Your task to perform on an android device: What's on the menu at Domino's? Image 0: 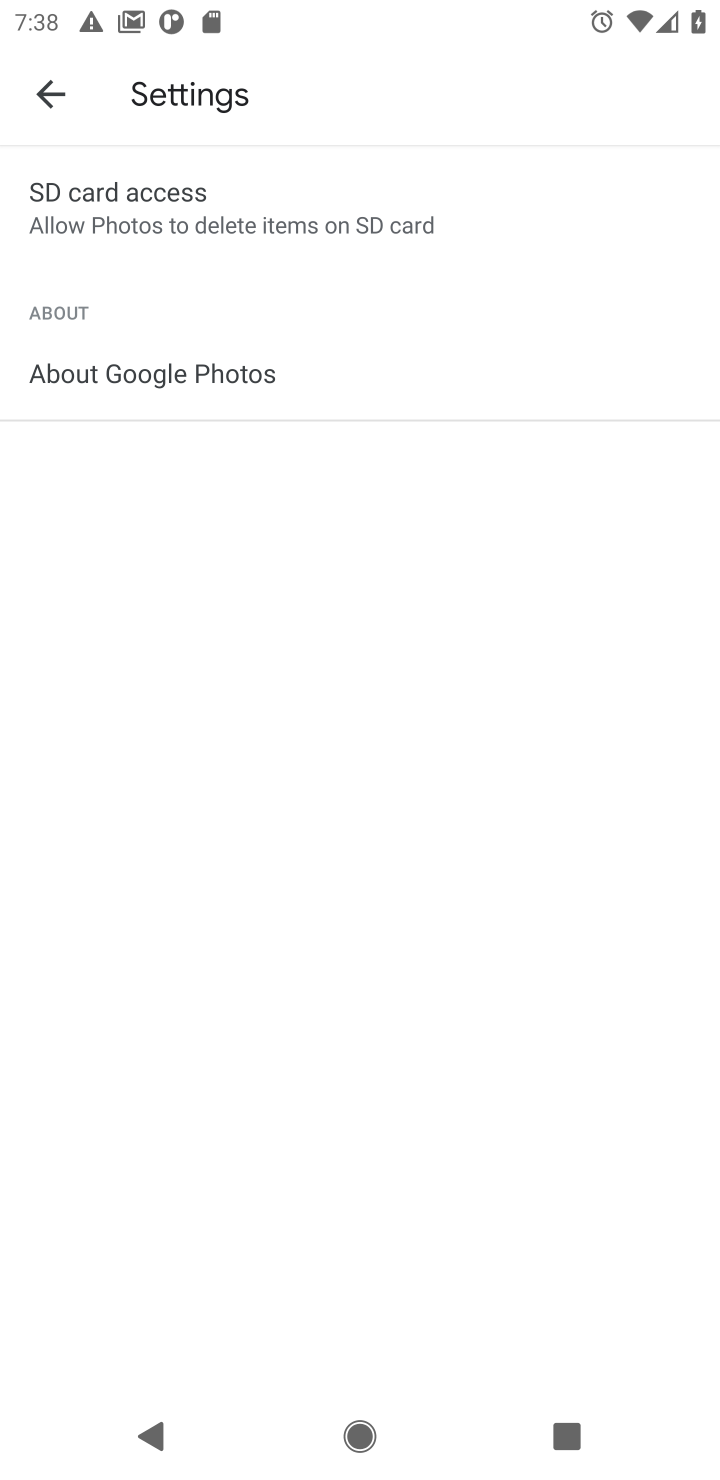
Step 0: press home button
Your task to perform on an android device: What's on the menu at Domino's? Image 1: 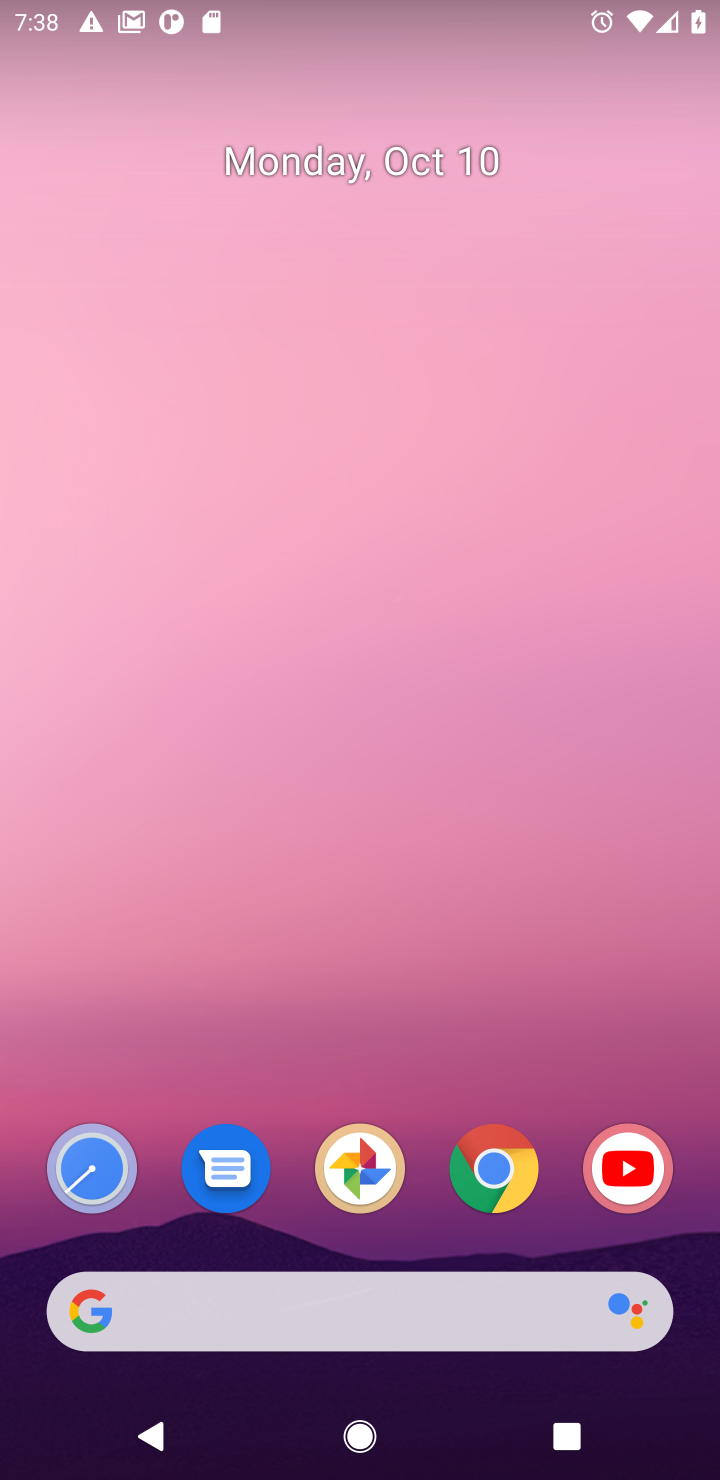
Step 1: click (347, 1317)
Your task to perform on an android device: What's on the menu at Domino's? Image 2: 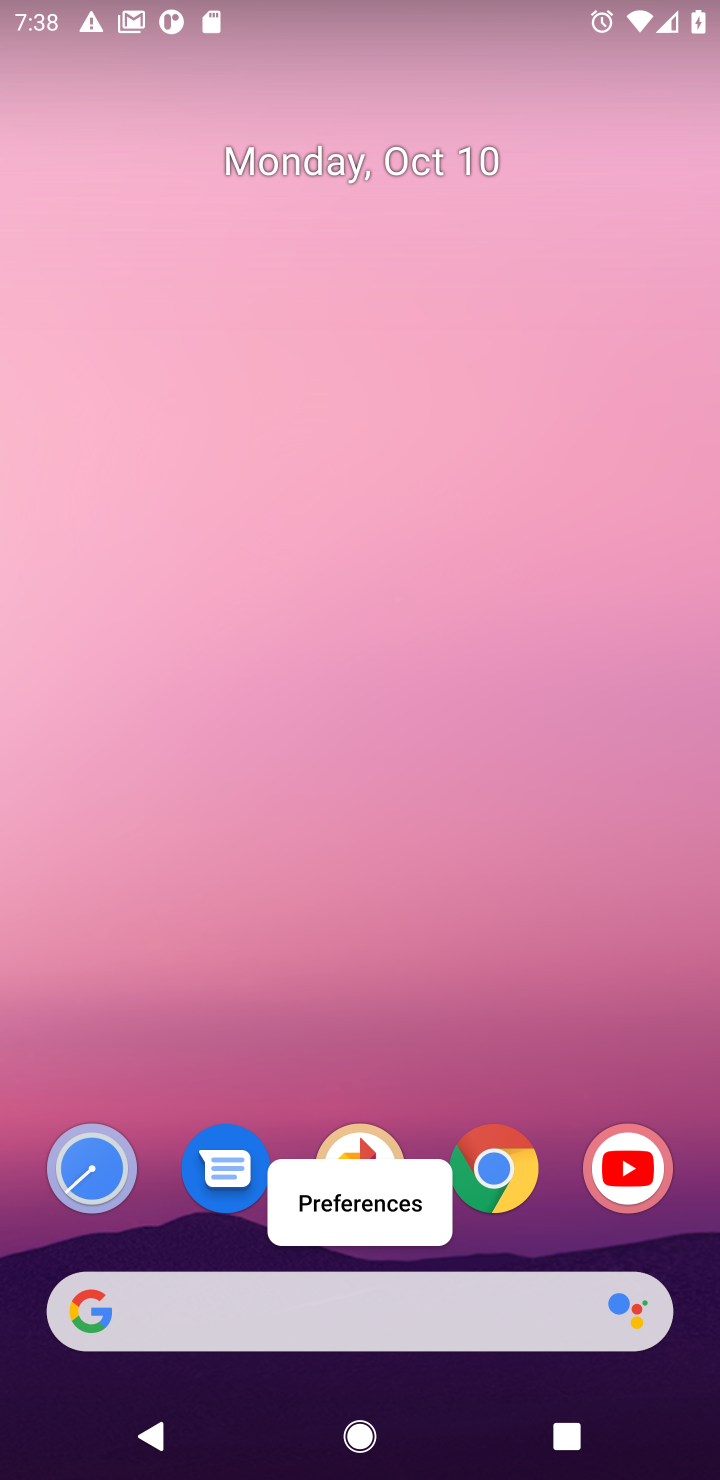
Step 2: click (212, 1321)
Your task to perform on an android device: What's on the menu at Domino's? Image 3: 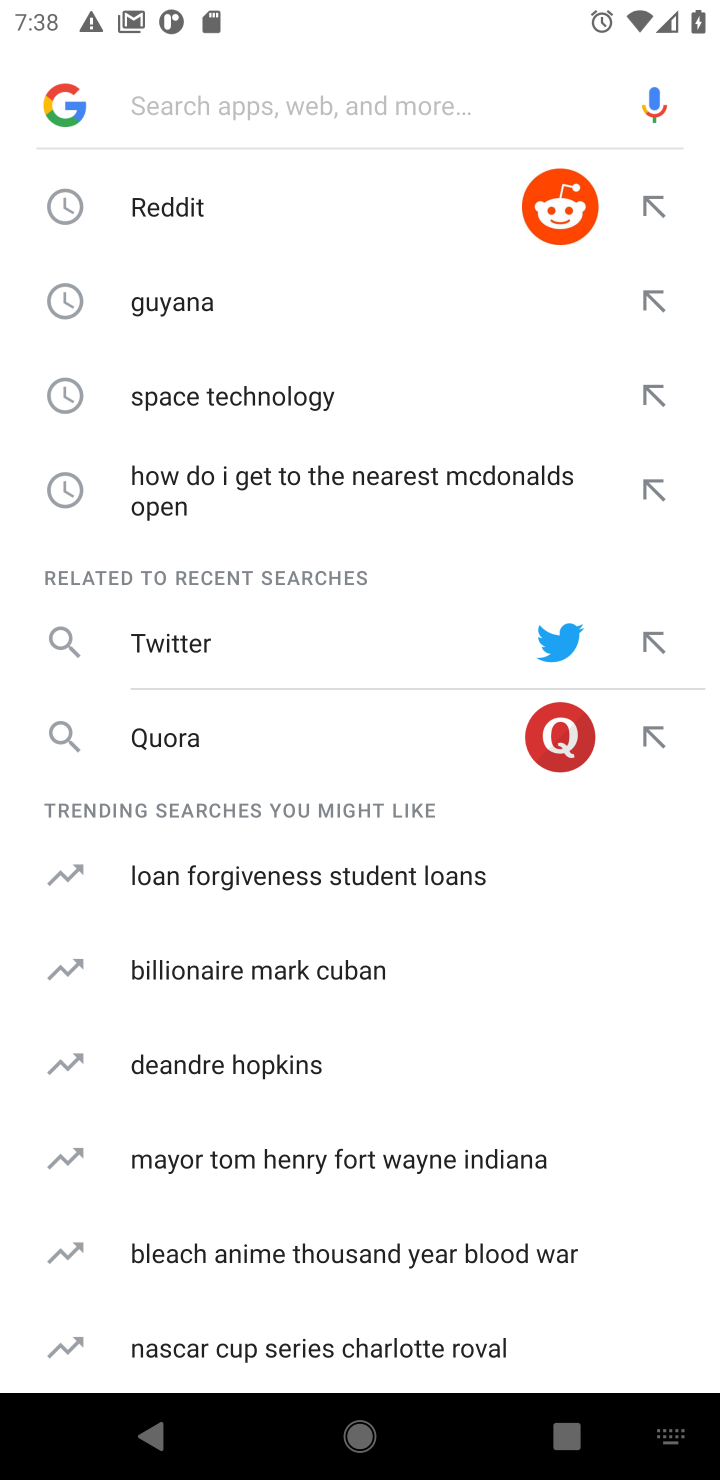
Step 3: type "domino's menu"
Your task to perform on an android device: What's on the menu at Domino's? Image 4: 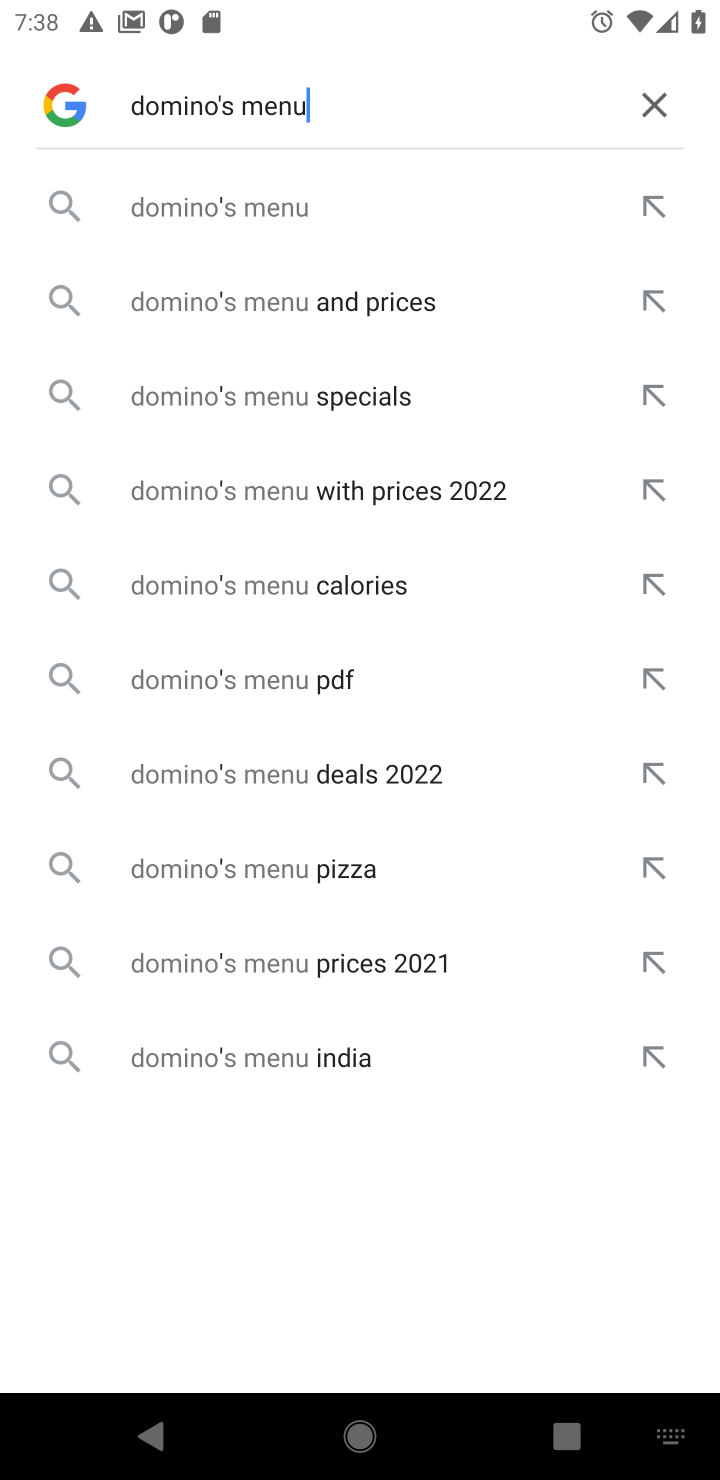
Step 4: click (222, 215)
Your task to perform on an android device: What's on the menu at Domino's? Image 5: 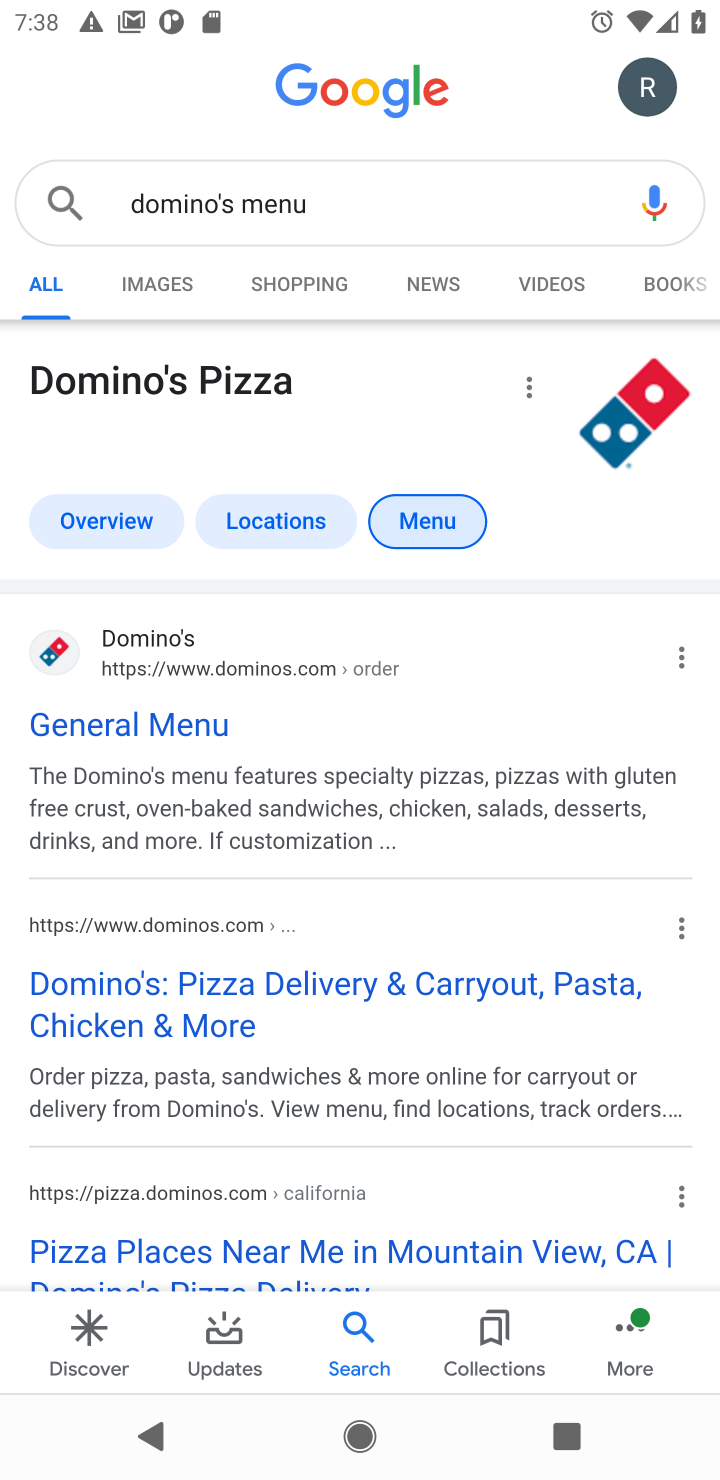
Step 5: drag from (393, 766) to (412, 485)
Your task to perform on an android device: What's on the menu at Domino's? Image 6: 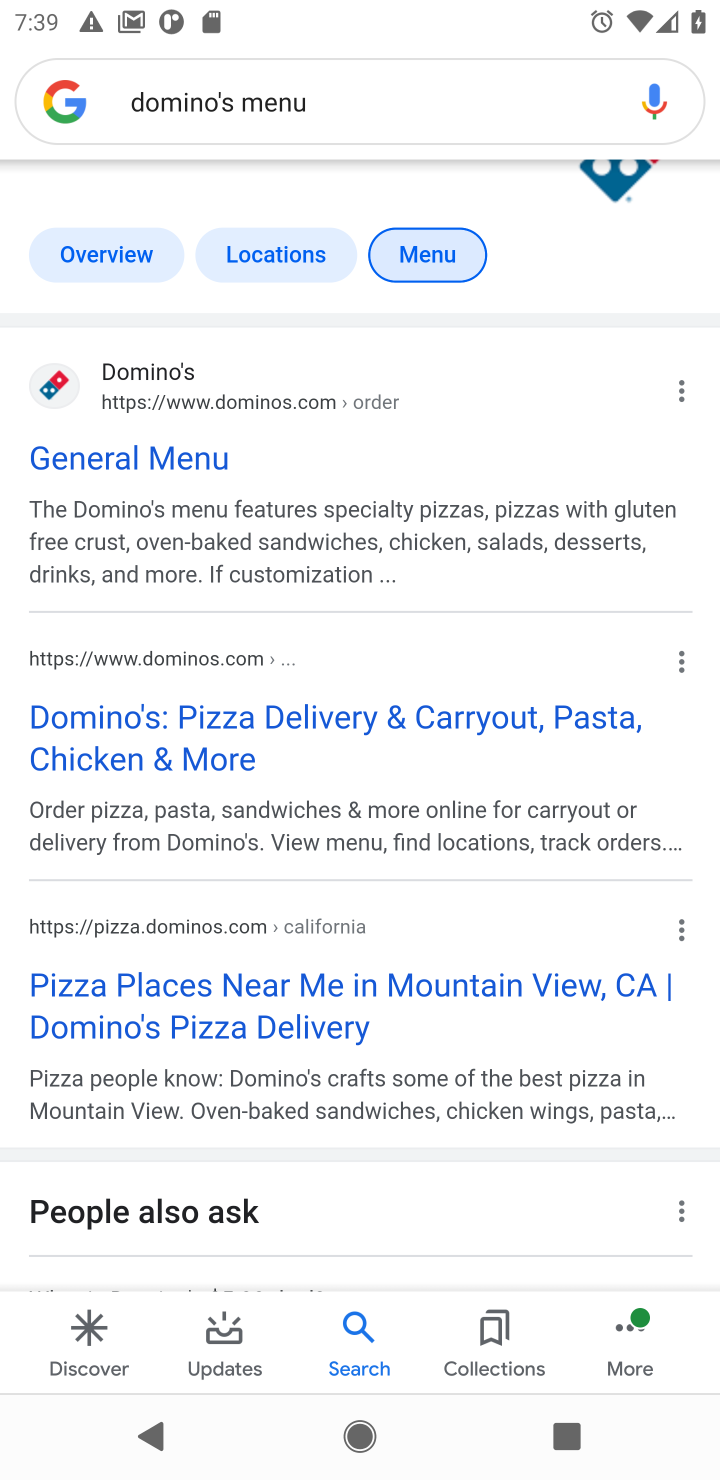
Step 6: click (144, 465)
Your task to perform on an android device: What's on the menu at Domino's? Image 7: 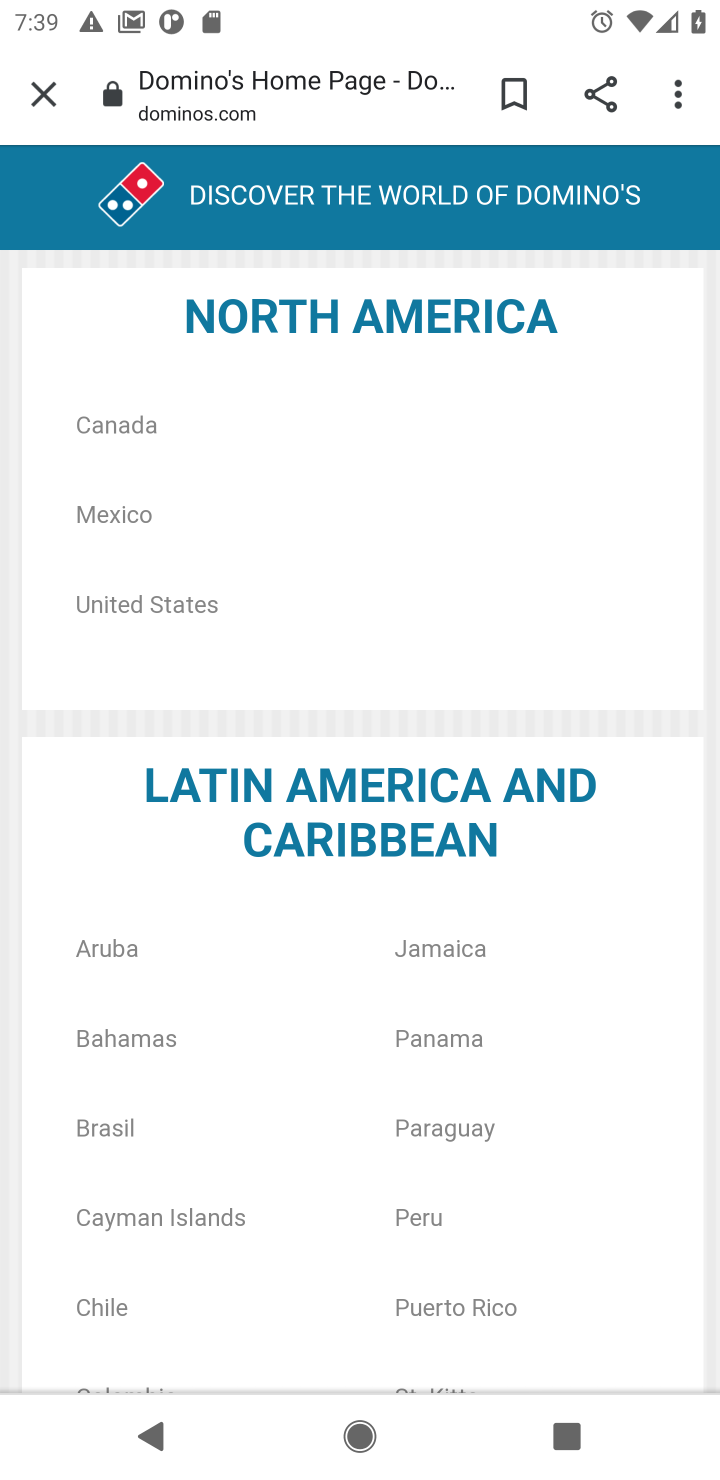
Step 7: drag from (399, 741) to (338, 420)
Your task to perform on an android device: What's on the menu at Domino's? Image 8: 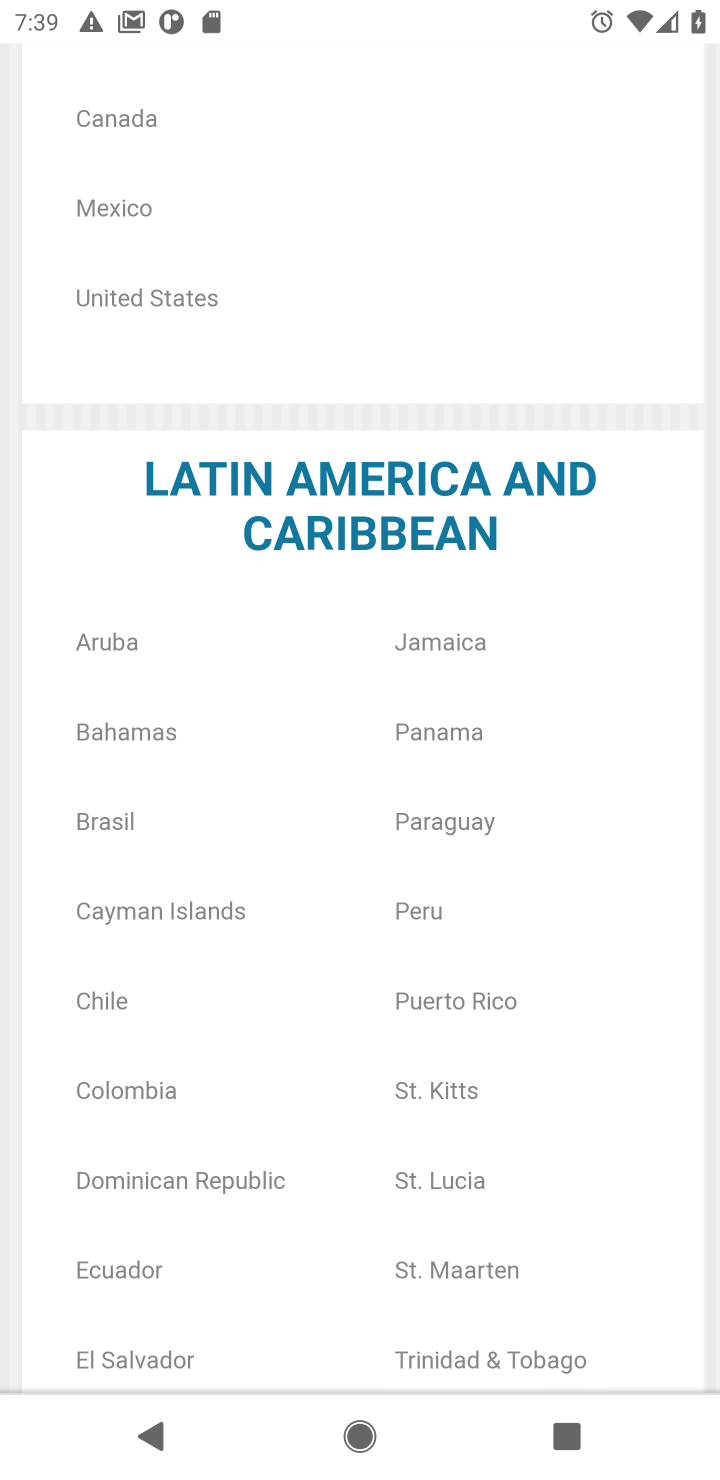
Step 8: drag from (329, 413) to (314, 939)
Your task to perform on an android device: What's on the menu at Domino's? Image 9: 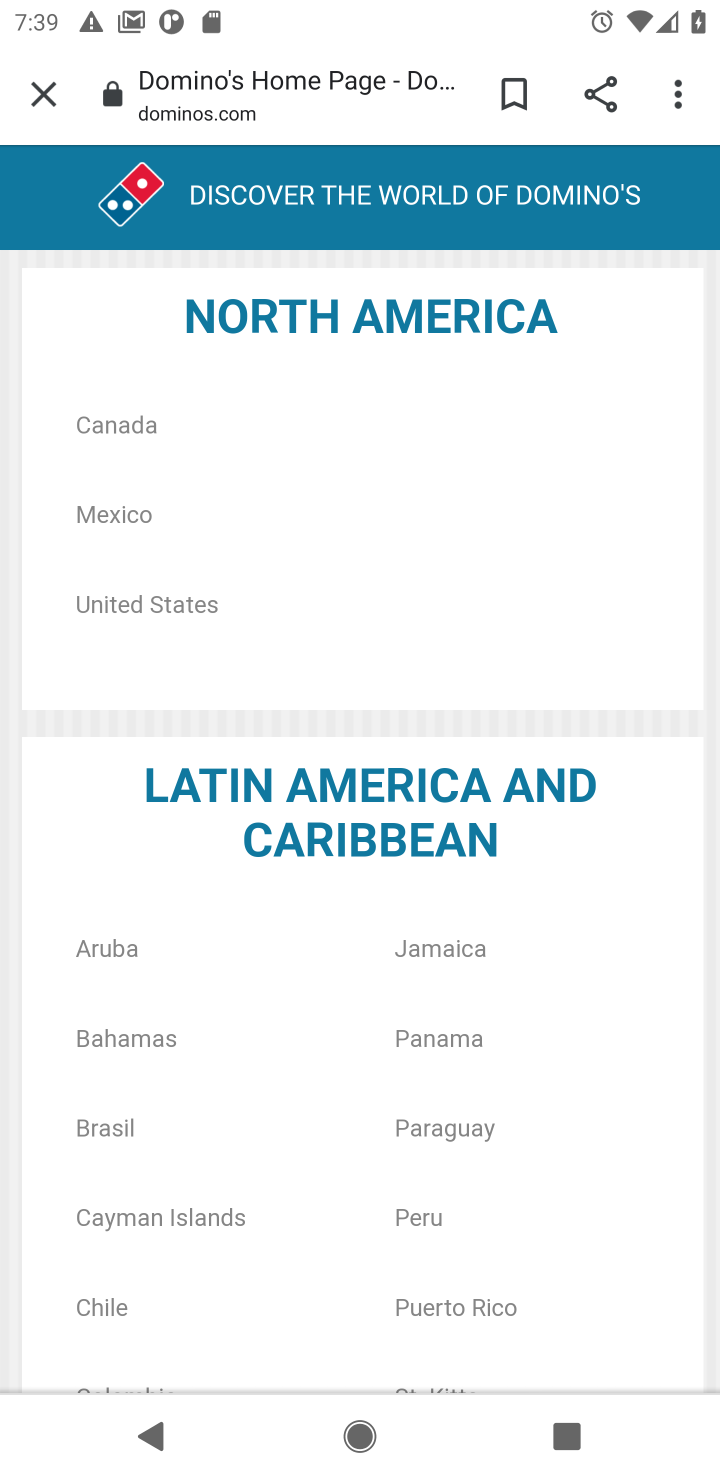
Step 9: click (96, 603)
Your task to perform on an android device: What's on the menu at Domino's? Image 10: 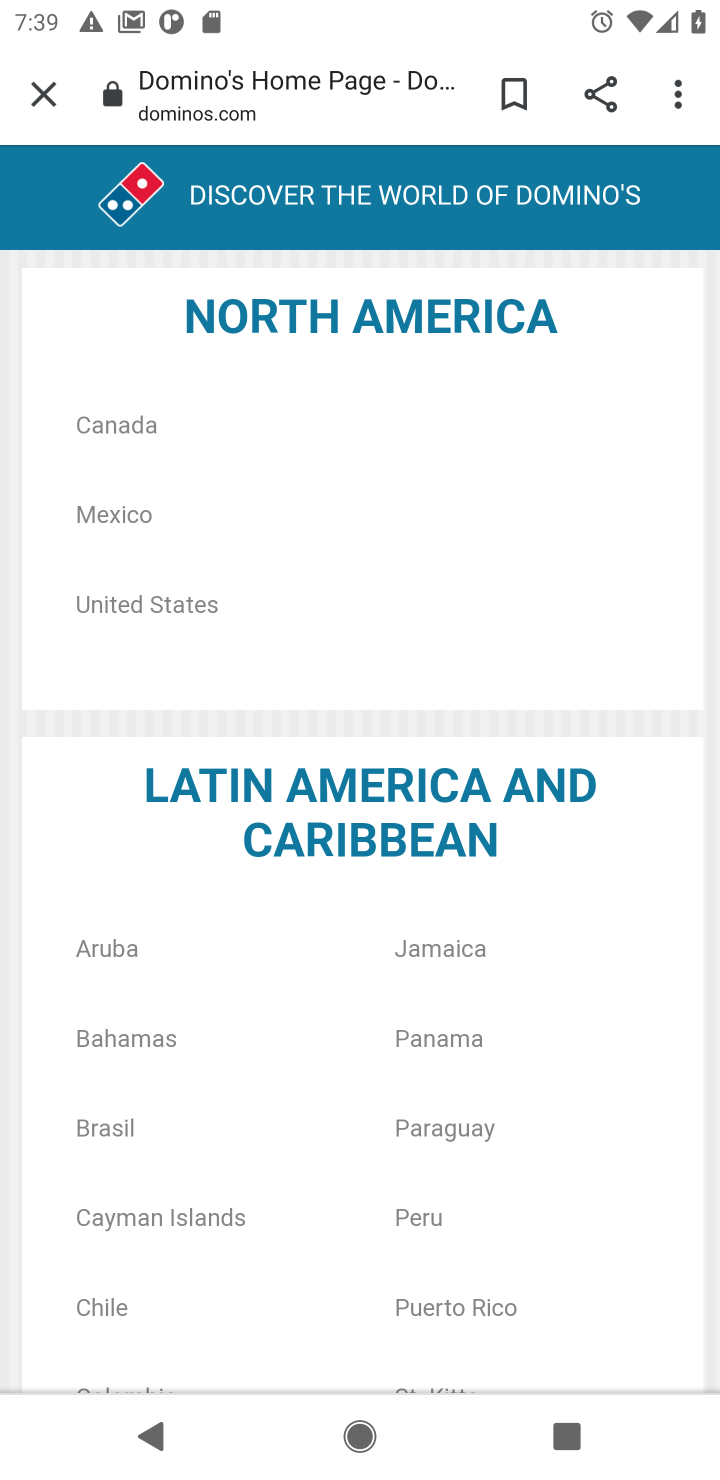
Step 10: task complete